Your task to perform on an android device: Is it going to rain tomorrow? Image 0: 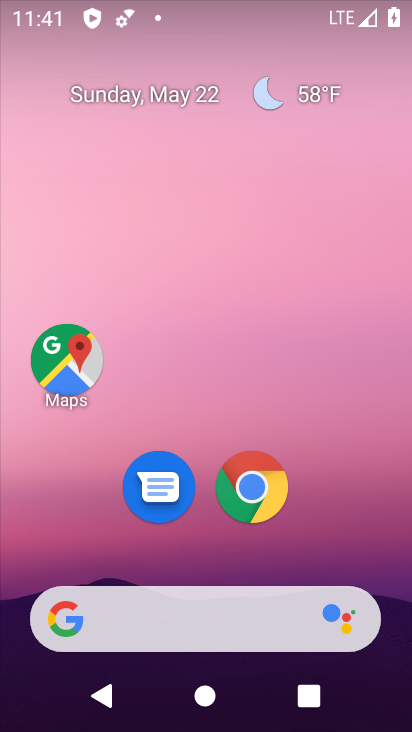
Step 0: drag from (362, 456) to (352, 40)
Your task to perform on an android device: Is it going to rain tomorrow? Image 1: 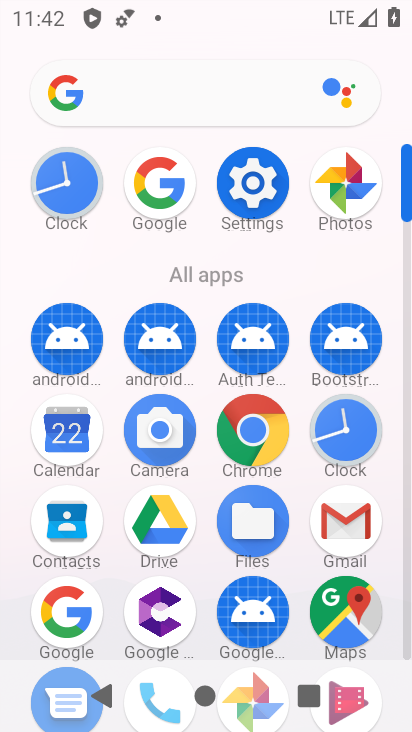
Step 1: press home button
Your task to perform on an android device: Is it going to rain tomorrow? Image 2: 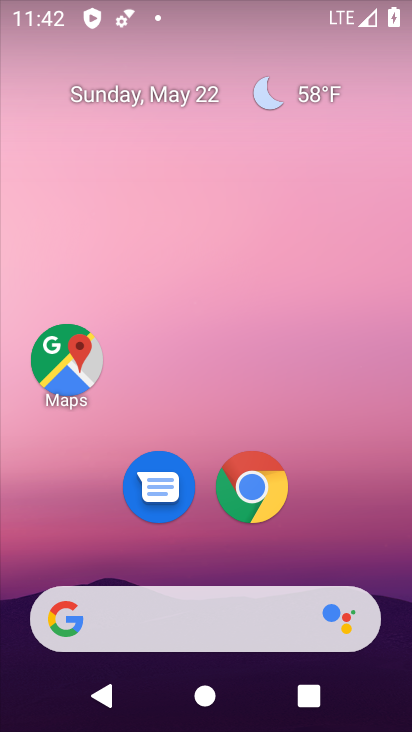
Step 2: click (316, 106)
Your task to perform on an android device: Is it going to rain tomorrow? Image 3: 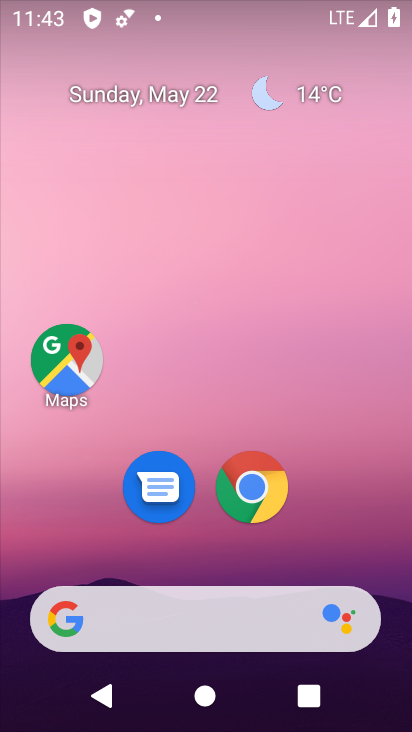
Step 3: click (326, 93)
Your task to perform on an android device: Is it going to rain tomorrow? Image 4: 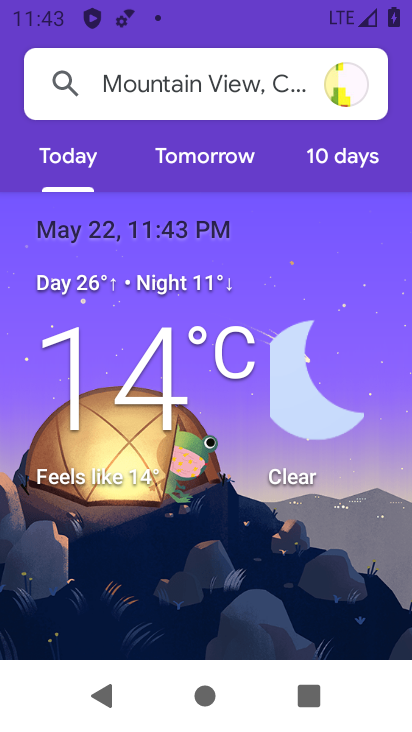
Step 4: click (226, 171)
Your task to perform on an android device: Is it going to rain tomorrow? Image 5: 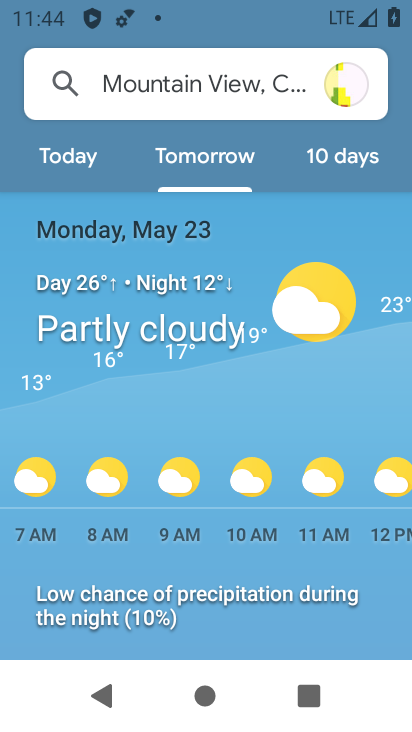
Step 5: task complete